Your task to perform on an android device: move an email to a new category in the gmail app Image 0: 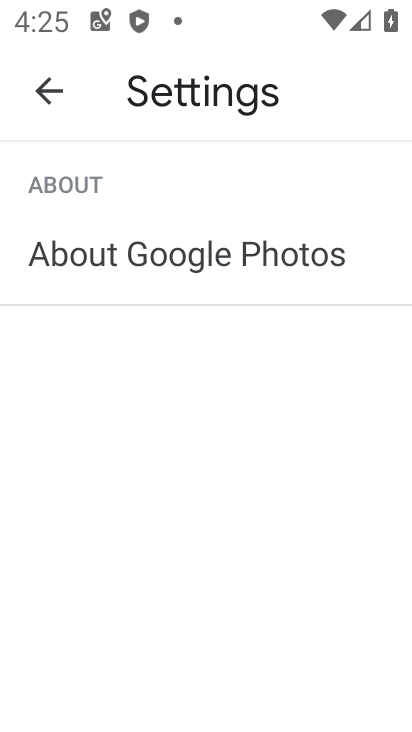
Step 0: press home button
Your task to perform on an android device: move an email to a new category in the gmail app Image 1: 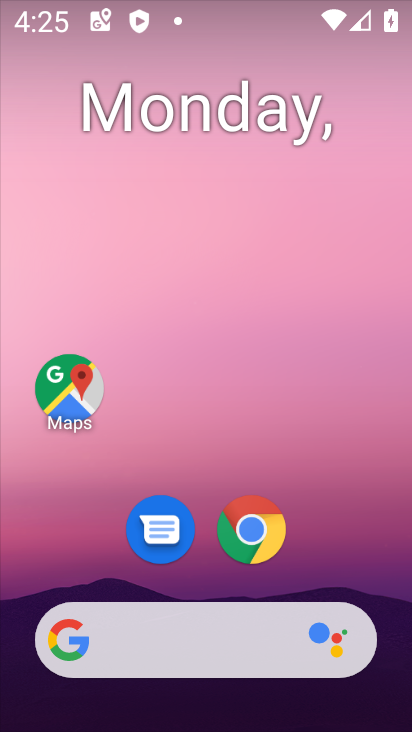
Step 1: drag from (203, 667) to (198, 172)
Your task to perform on an android device: move an email to a new category in the gmail app Image 2: 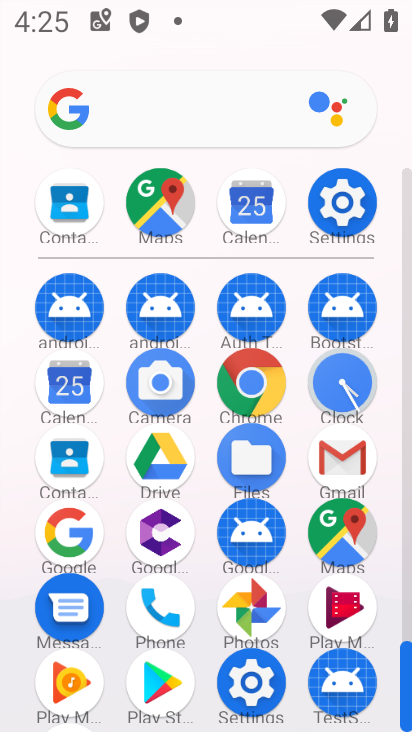
Step 2: click (346, 444)
Your task to perform on an android device: move an email to a new category in the gmail app Image 3: 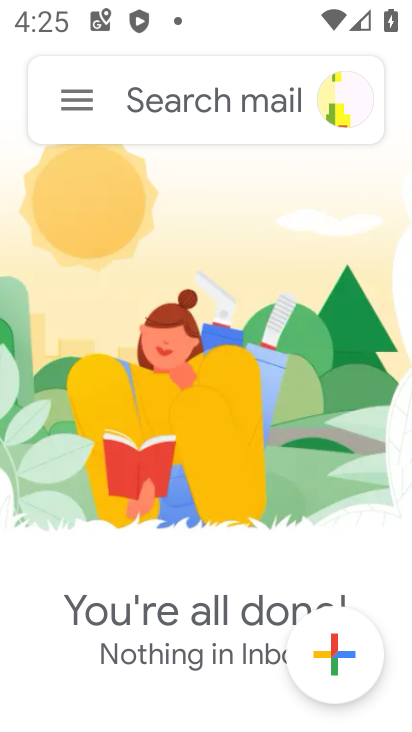
Step 3: task complete